Your task to perform on an android device: Open Youtube and go to the subscriptions tab Image 0: 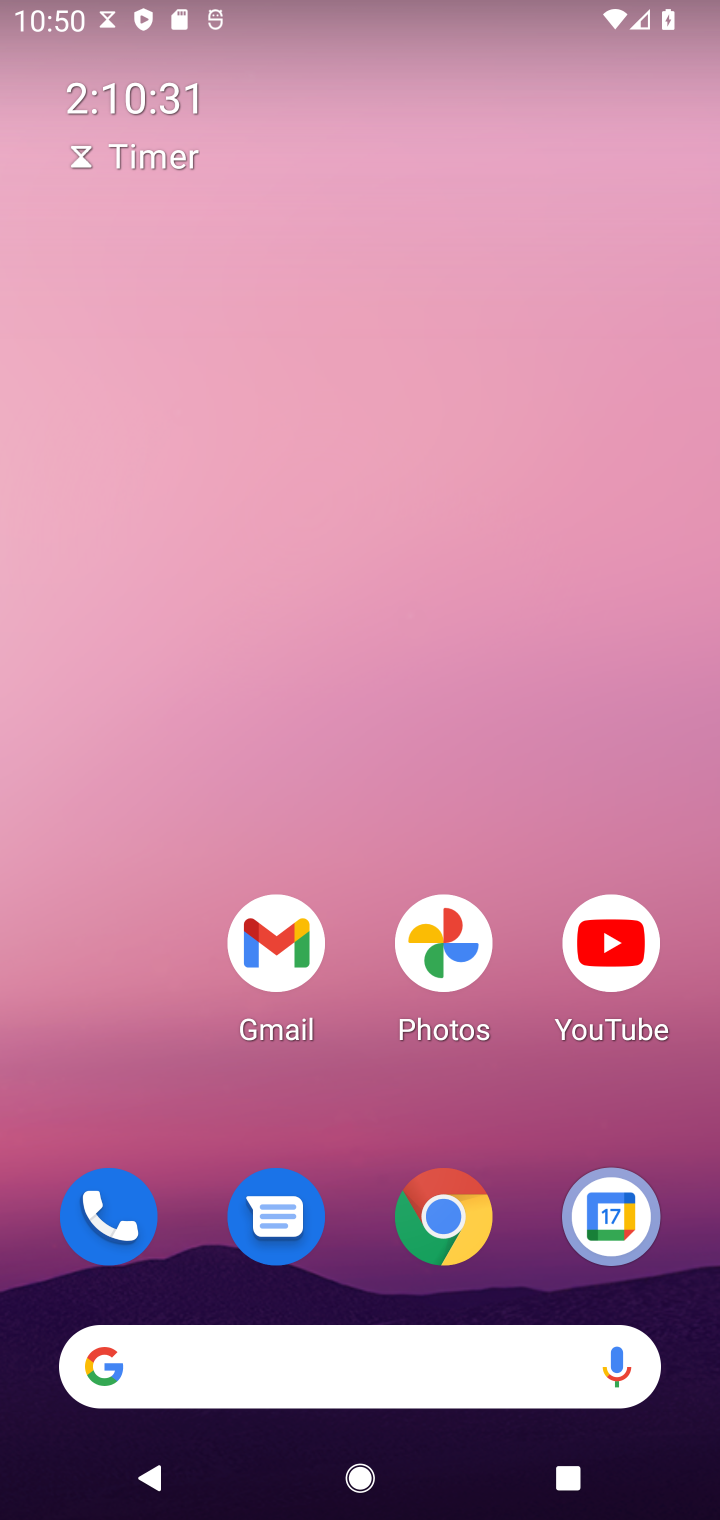
Step 0: click (624, 948)
Your task to perform on an android device: Open Youtube and go to the subscriptions tab Image 1: 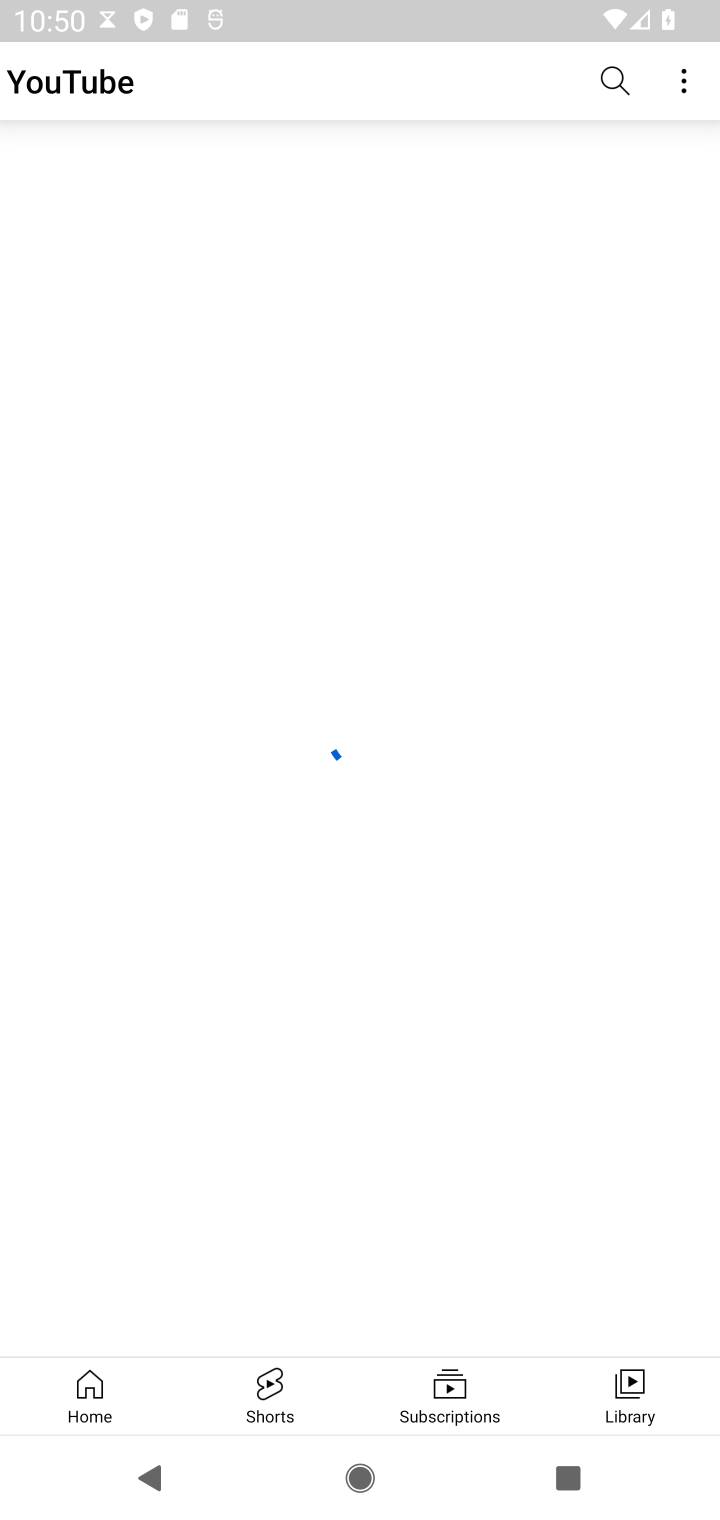
Step 1: click (464, 1381)
Your task to perform on an android device: Open Youtube and go to the subscriptions tab Image 2: 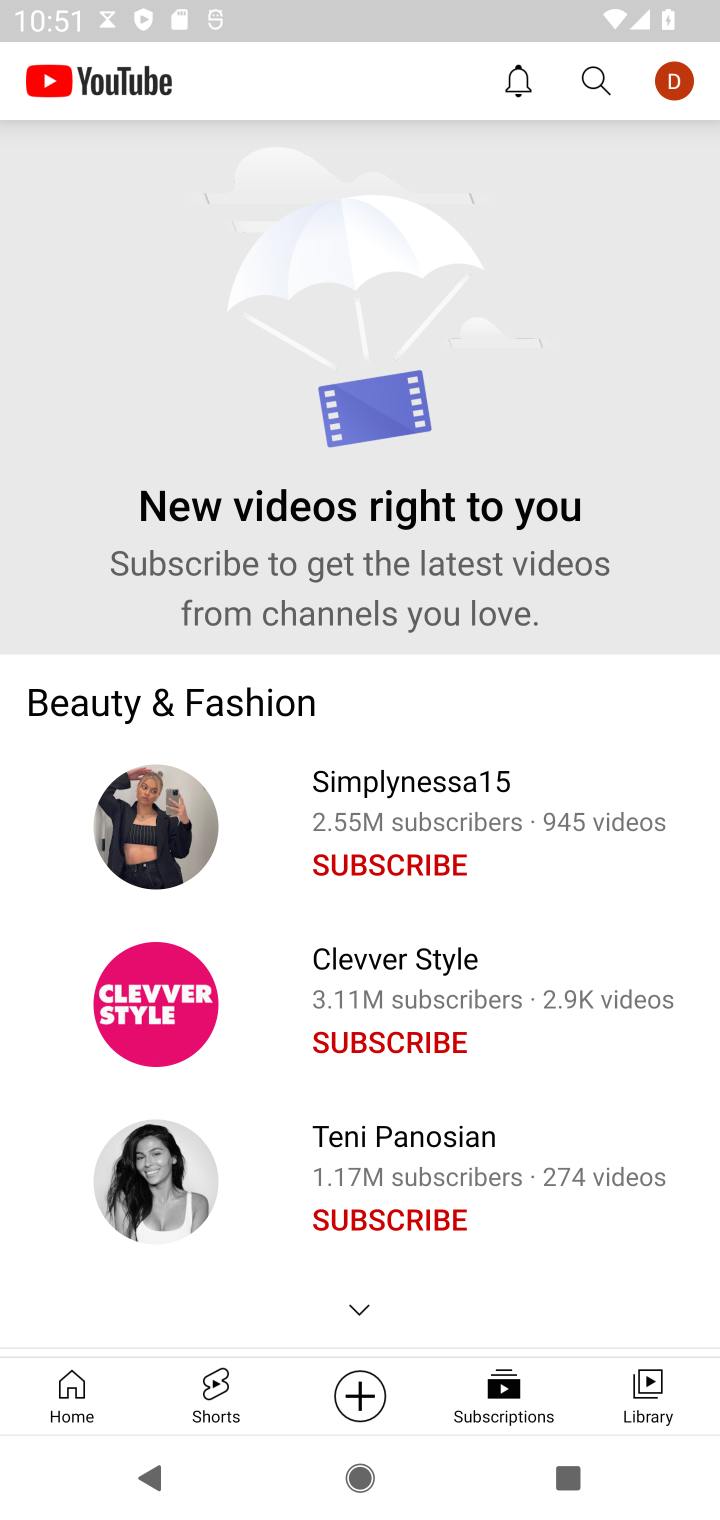
Step 2: task complete